Your task to perform on an android device: turn on translation in the chrome app Image 0: 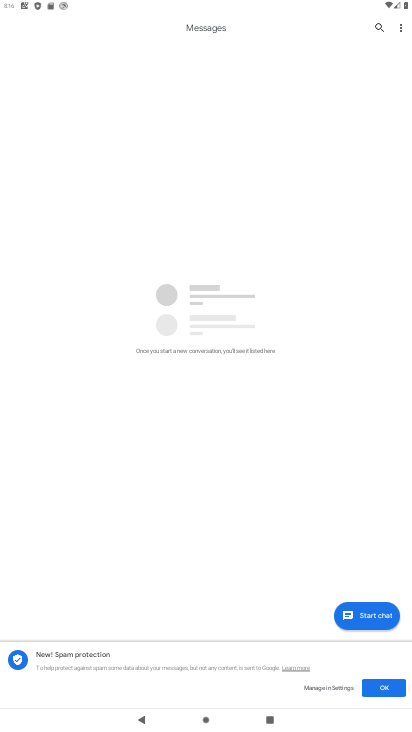
Step 0: press home button
Your task to perform on an android device: turn on translation in the chrome app Image 1: 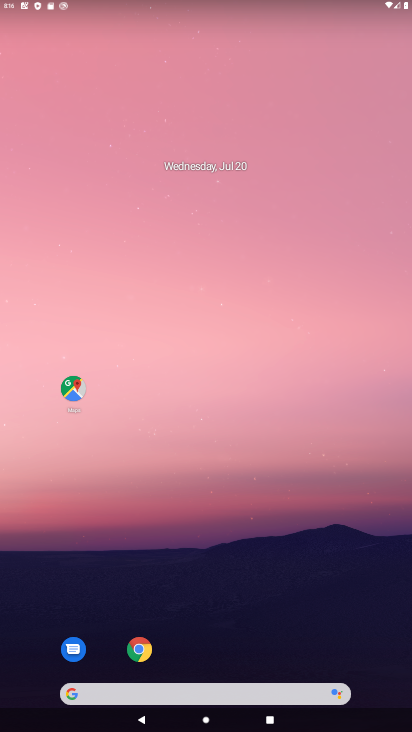
Step 1: click (133, 655)
Your task to perform on an android device: turn on translation in the chrome app Image 2: 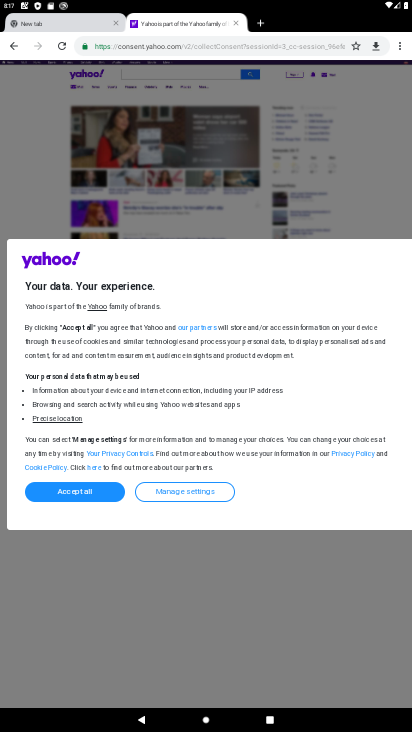
Step 2: click (73, 486)
Your task to perform on an android device: turn on translation in the chrome app Image 3: 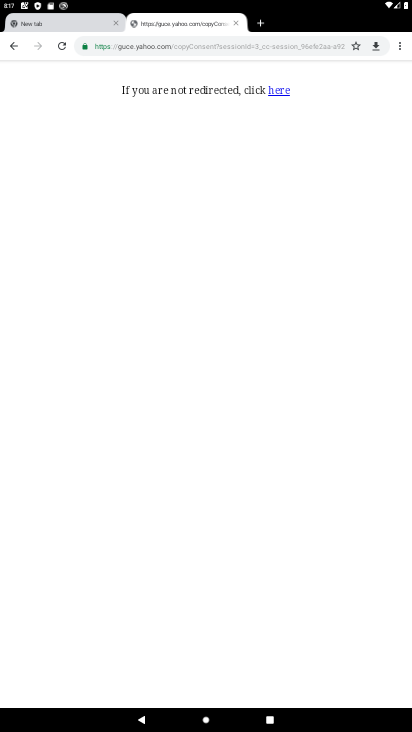
Step 3: click (401, 50)
Your task to perform on an android device: turn on translation in the chrome app Image 4: 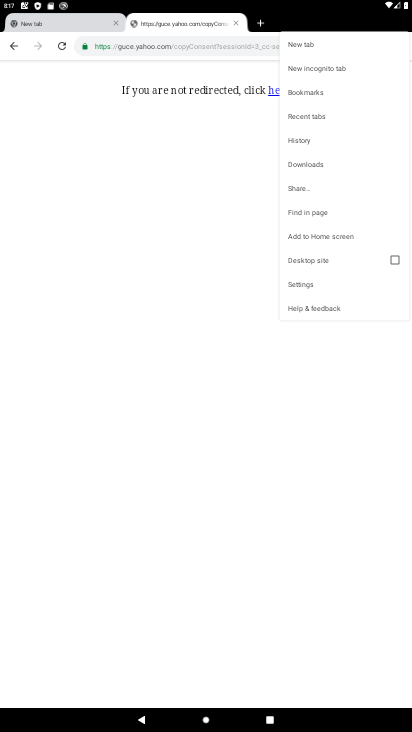
Step 4: click (326, 280)
Your task to perform on an android device: turn on translation in the chrome app Image 5: 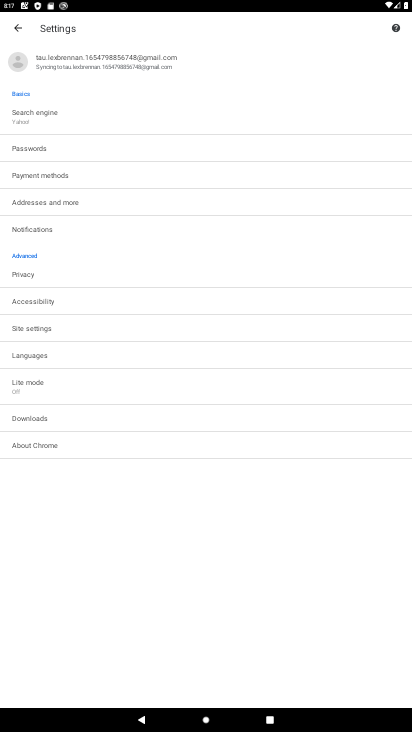
Step 5: click (86, 351)
Your task to perform on an android device: turn on translation in the chrome app Image 6: 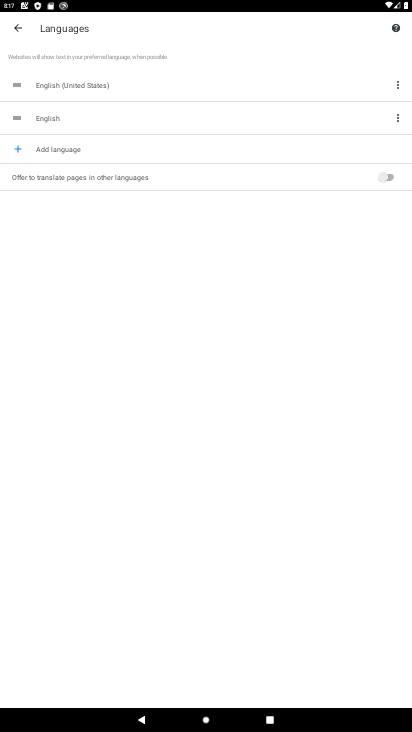
Step 6: click (368, 171)
Your task to perform on an android device: turn on translation in the chrome app Image 7: 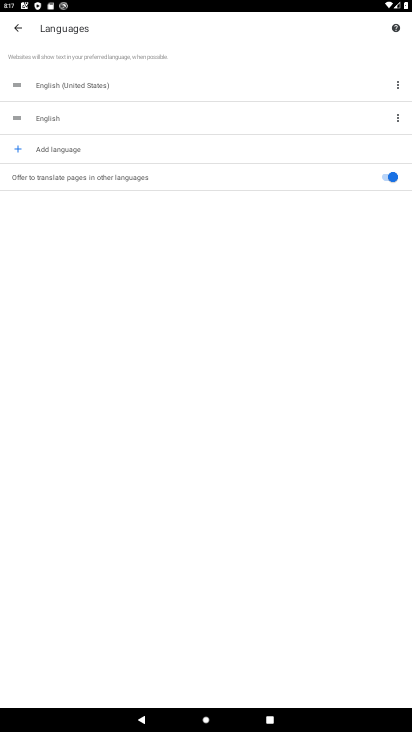
Step 7: task complete